Your task to perform on an android device: Go to Wikipedia Image 0: 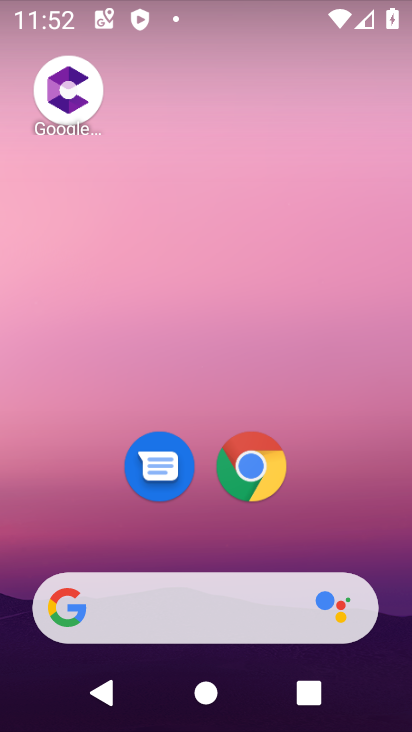
Step 0: click (253, 471)
Your task to perform on an android device: Go to Wikipedia Image 1: 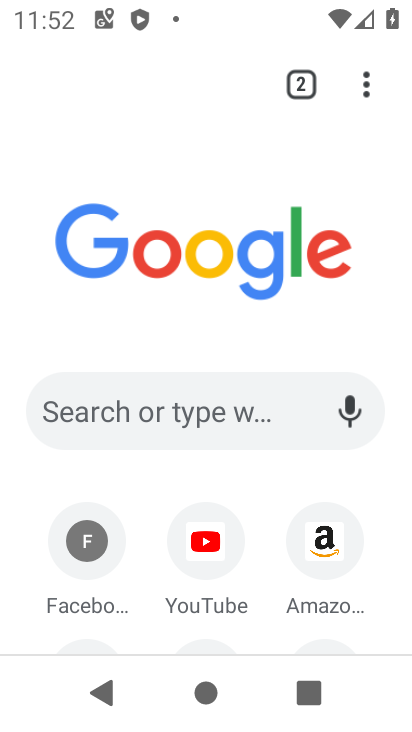
Step 1: drag from (264, 537) to (281, 89)
Your task to perform on an android device: Go to Wikipedia Image 2: 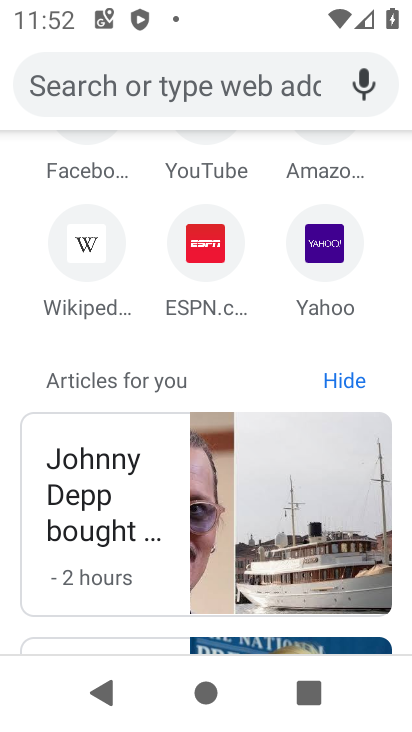
Step 2: click (82, 249)
Your task to perform on an android device: Go to Wikipedia Image 3: 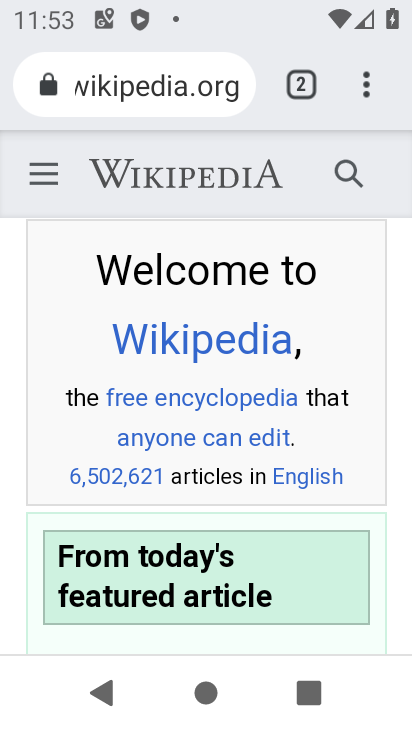
Step 3: task complete